Your task to perform on an android device: Turn off the flashlight Image 0: 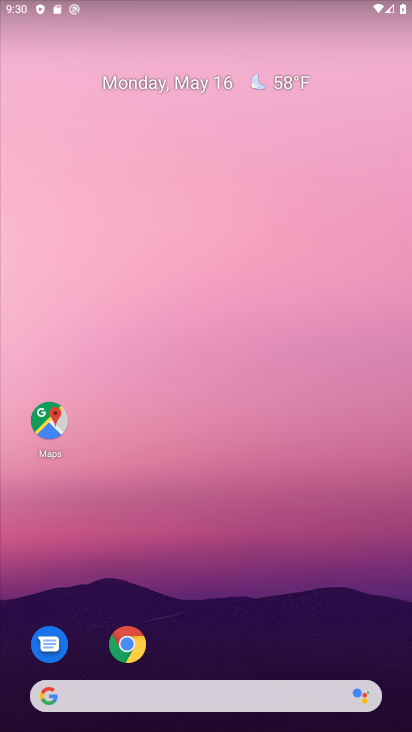
Step 0: drag from (195, 16) to (180, 520)
Your task to perform on an android device: Turn off the flashlight Image 1: 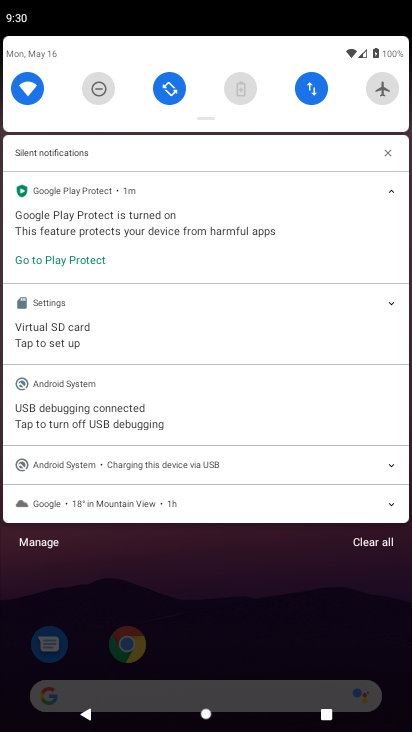
Step 1: task complete